Your task to perform on an android device: Empty the shopping cart on amazon. Search for "asus rog" on amazon, select the first entry, add it to the cart, then select checkout. Image 0: 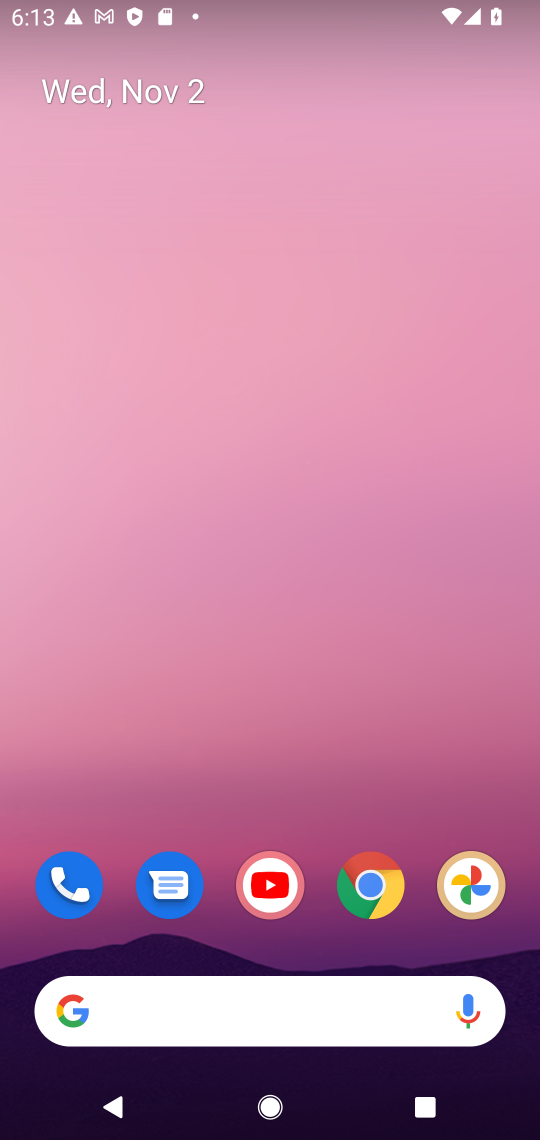
Step 0: click (384, 897)
Your task to perform on an android device: Empty the shopping cart on amazon. Search for "asus rog" on amazon, select the first entry, add it to the cart, then select checkout. Image 1: 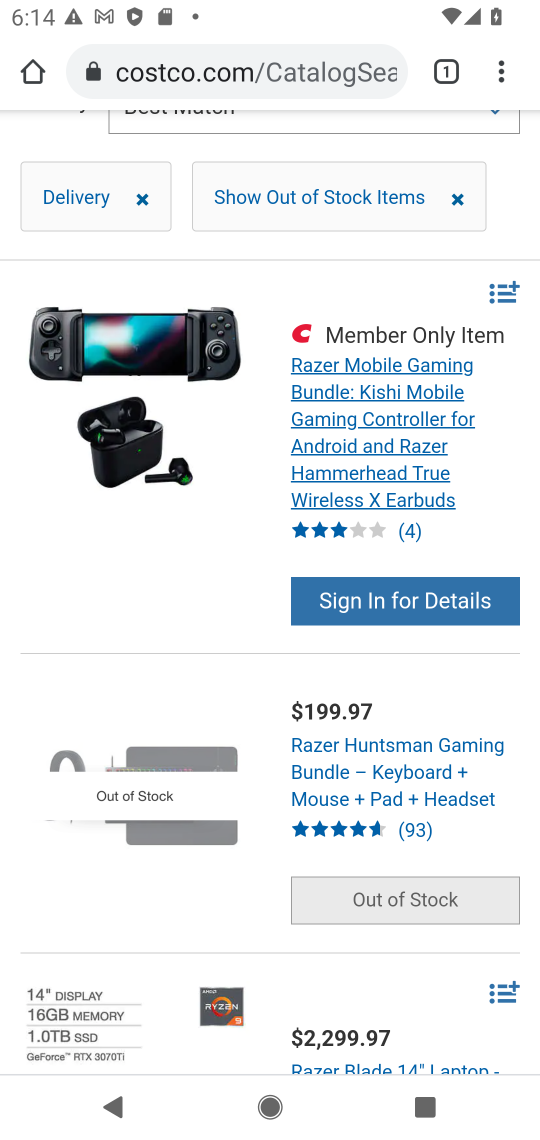
Step 1: drag from (263, 415) to (309, 828)
Your task to perform on an android device: Empty the shopping cart on amazon. Search for "asus rog" on amazon, select the first entry, add it to the cart, then select checkout. Image 2: 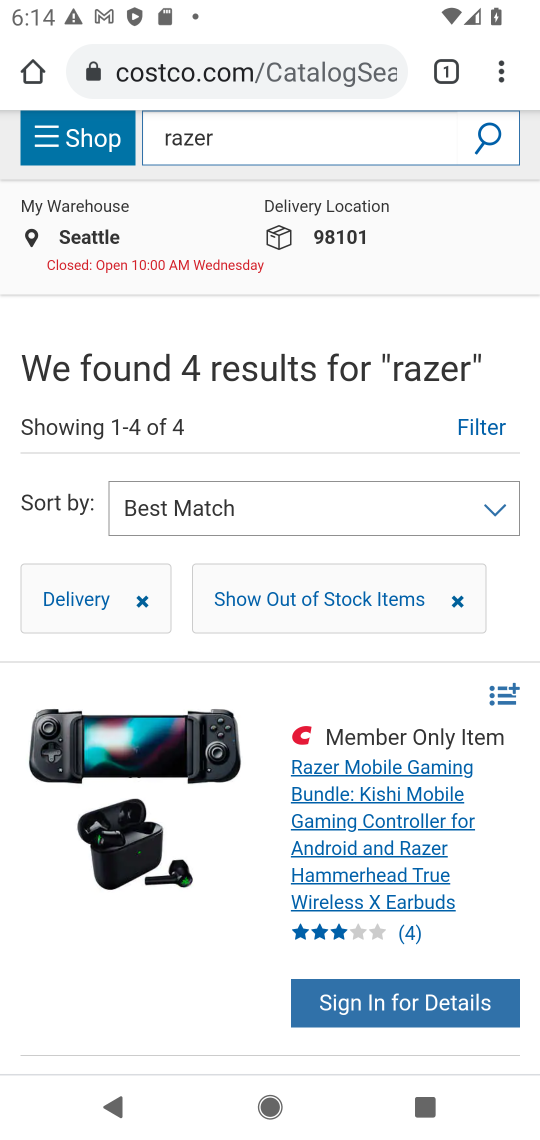
Step 2: click (499, 80)
Your task to perform on an android device: Empty the shopping cart on amazon. Search for "asus rog" on amazon, select the first entry, add it to the cart, then select checkout. Image 3: 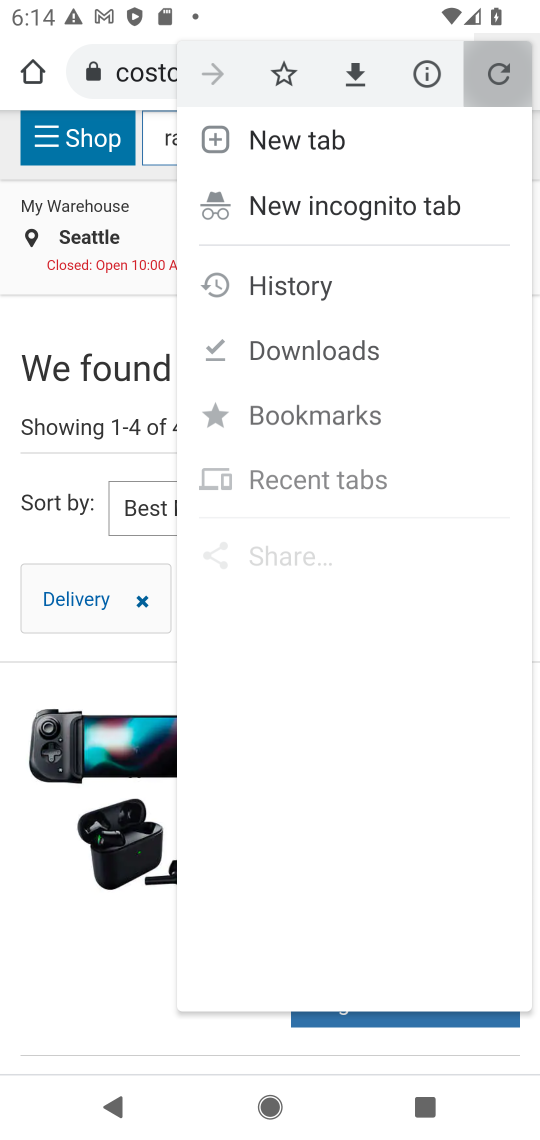
Step 3: drag from (492, 87) to (304, 145)
Your task to perform on an android device: Empty the shopping cart on amazon. Search for "asus rog" on amazon, select the first entry, add it to the cart, then select checkout. Image 4: 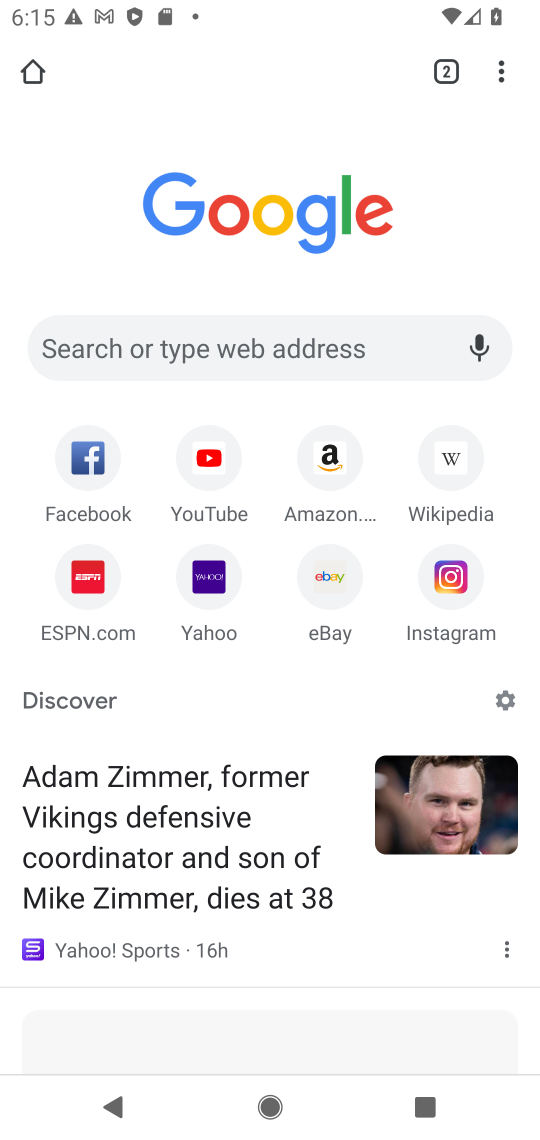
Step 4: click (336, 458)
Your task to perform on an android device: Empty the shopping cart on amazon. Search for "asus rog" on amazon, select the first entry, add it to the cart, then select checkout. Image 5: 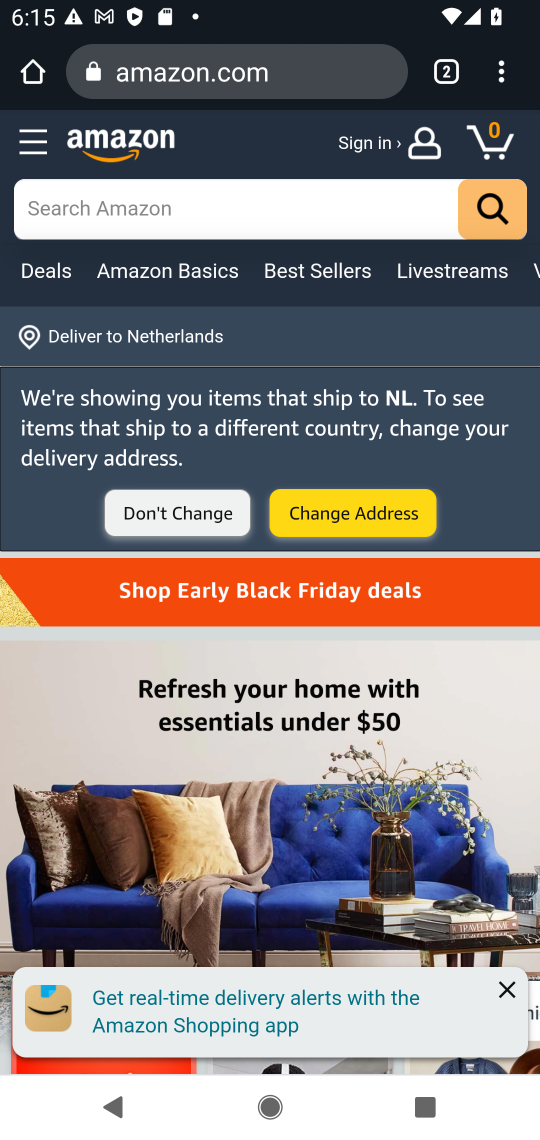
Step 5: click (33, 154)
Your task to perform on an android device: Empty the shopping cart on amazon. Search for "asus rog" on amazon, select the first entry, add it to the cart, then select checkout. Image 6: 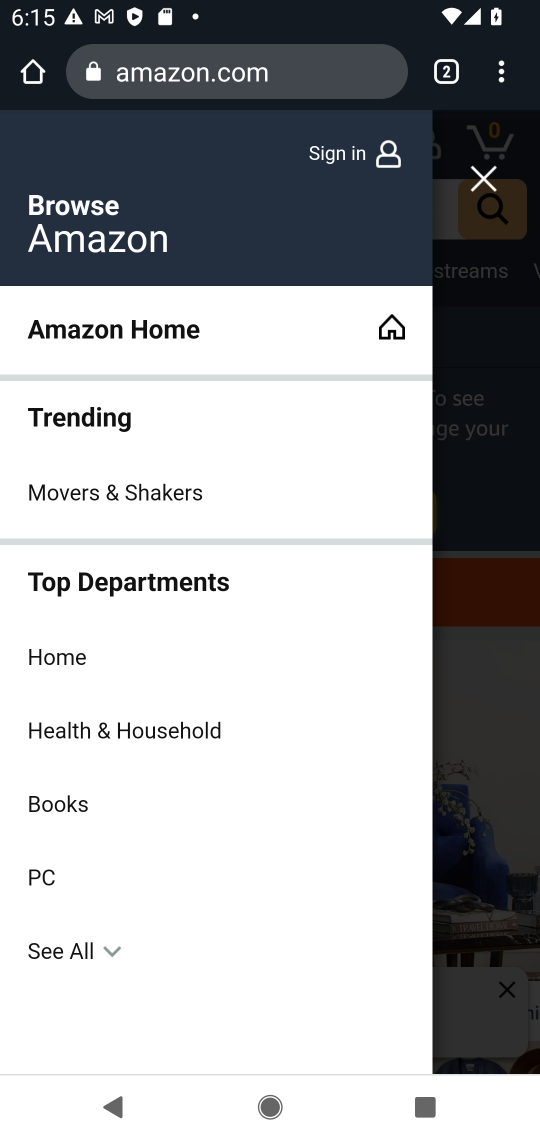
Step 6: drag from (164, 787) to (190, 456)
Your task to perform on an android device: Empty the shopping cart on amazon. Search for "asus rog" on amazon, select the first entry, add it to the cart, then select checkout. Image 7: 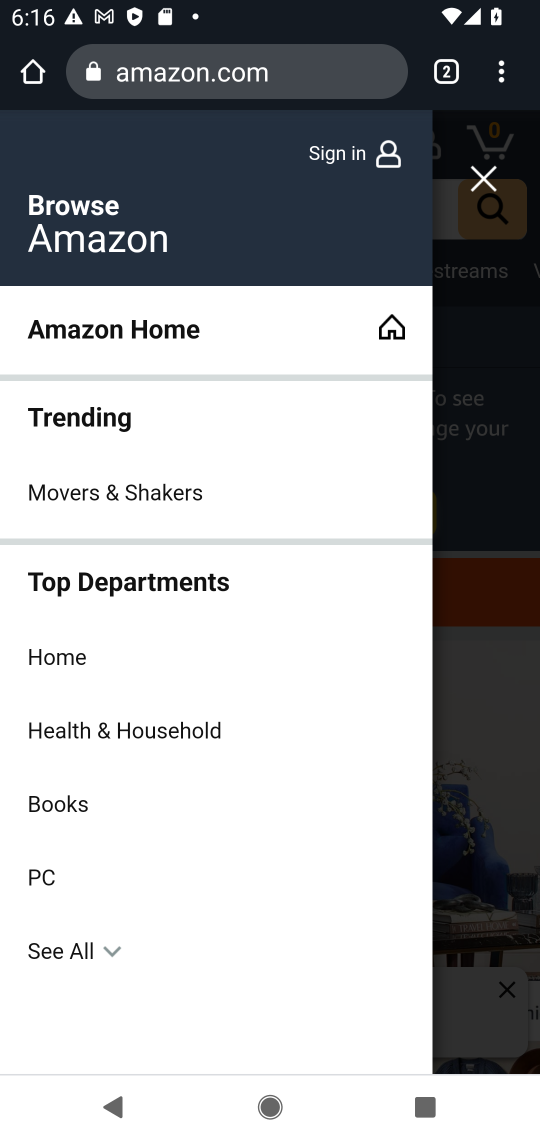
Step 7: click (493, 398)
Your task to perform on an android device: Empty the shopping cart on amazon. Search for "asus rog" on amazon, select the first entry, add it to the cart, then select checkout. Image 8: 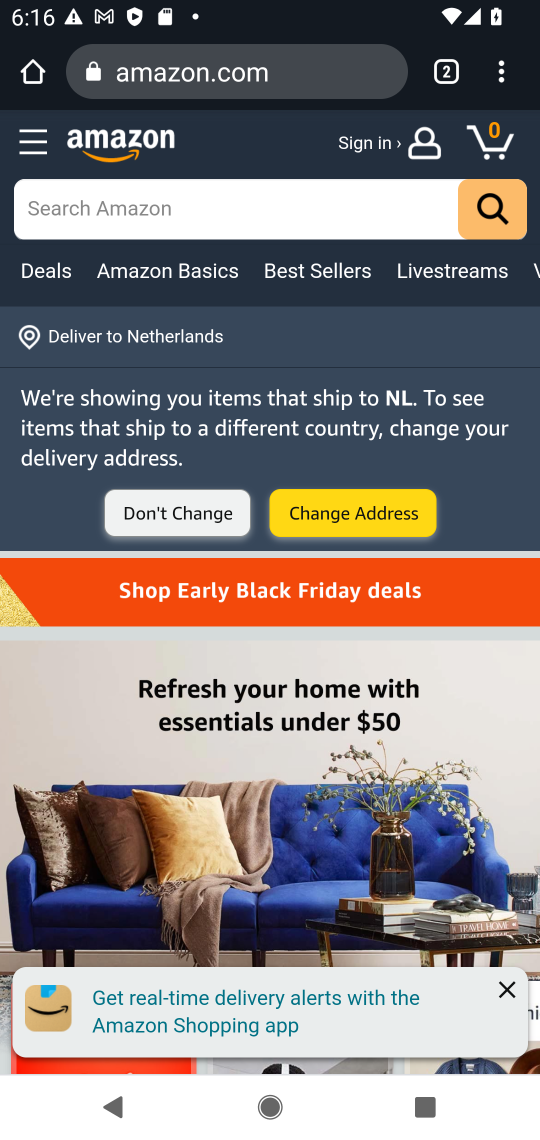
Step 8: click (483, 138)
Your task to perform on an android device: Empty the shopping cart on amazon. Search for "asus rog" on amazon, select the first entry, add it to the cart, then select checkout. Image 9: 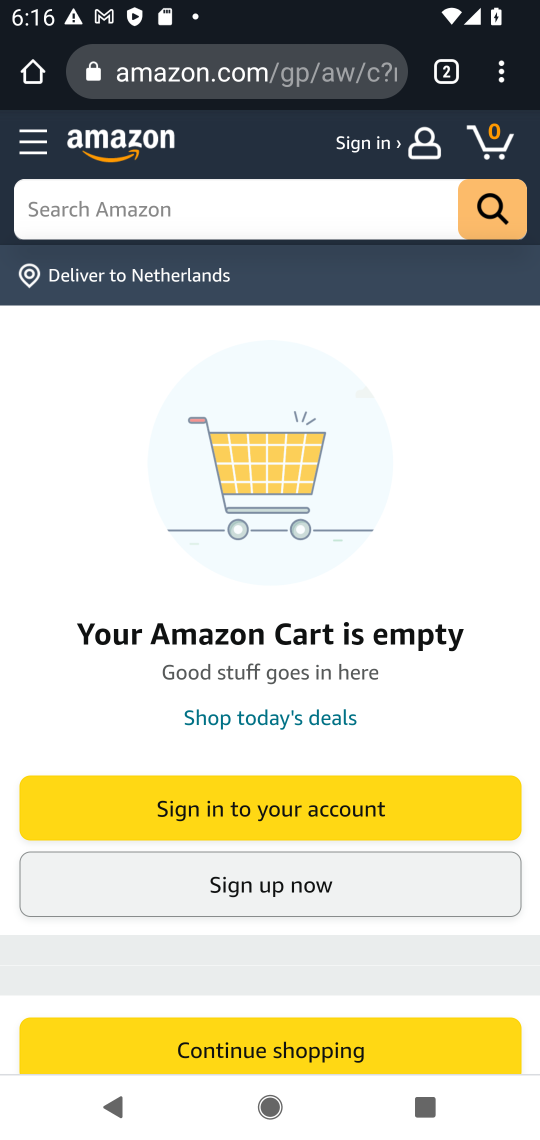
Step 9: click (197, 185)
Your task to perform on an android device: Empty the shopping cart on amazon. Search for "asus rog" on amazon, select the first entry, add it to the cart, then select checkout. Image 10: 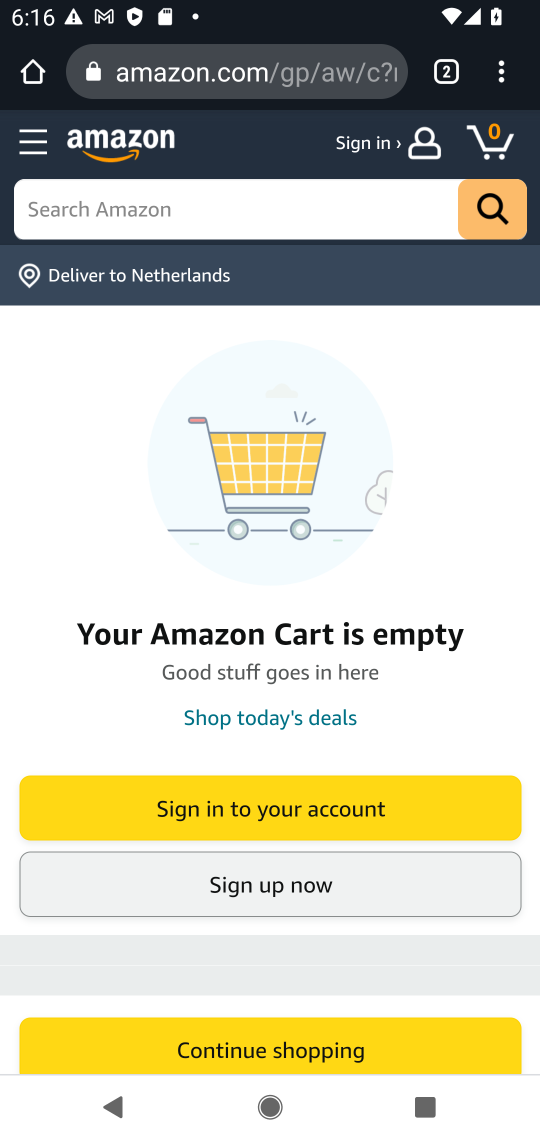
Step 10: click (203, 212)
Your task to perform on an android device: Empty the shopping cart on amazon. Search for "asus rog" on amazon, select the first entry, add it to the cart, then select checkout. Image 11: 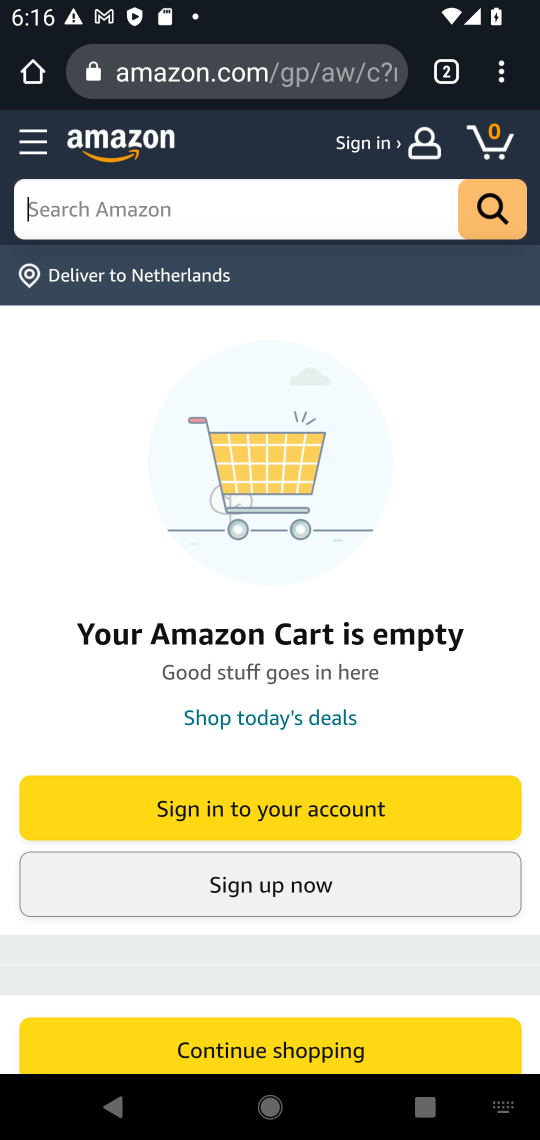
Step 11: type "sus rog"
Your task to perform on an android device: Empty the shopping cart on amazon. Search for "asus rog" on amazon, select the first entry, add it to the cart, then select checkout. Image 12: 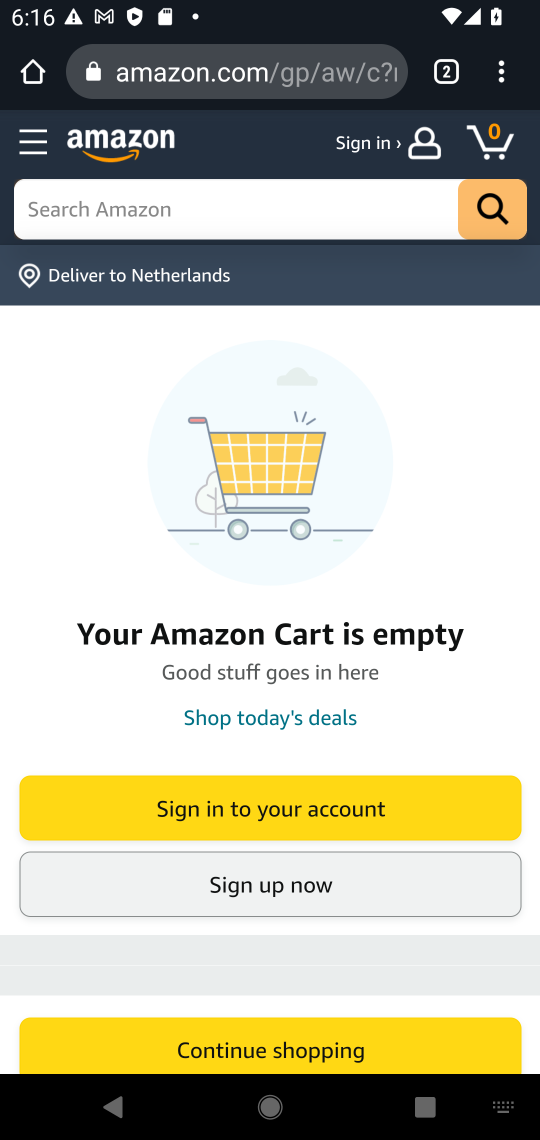
Step 12: type ""
Your task to perform on an android device: Empty the shopping cart on amazon. Search for "asus rog" on amazon, select the first entry, add it to the cart, then select checkout. Image 13: 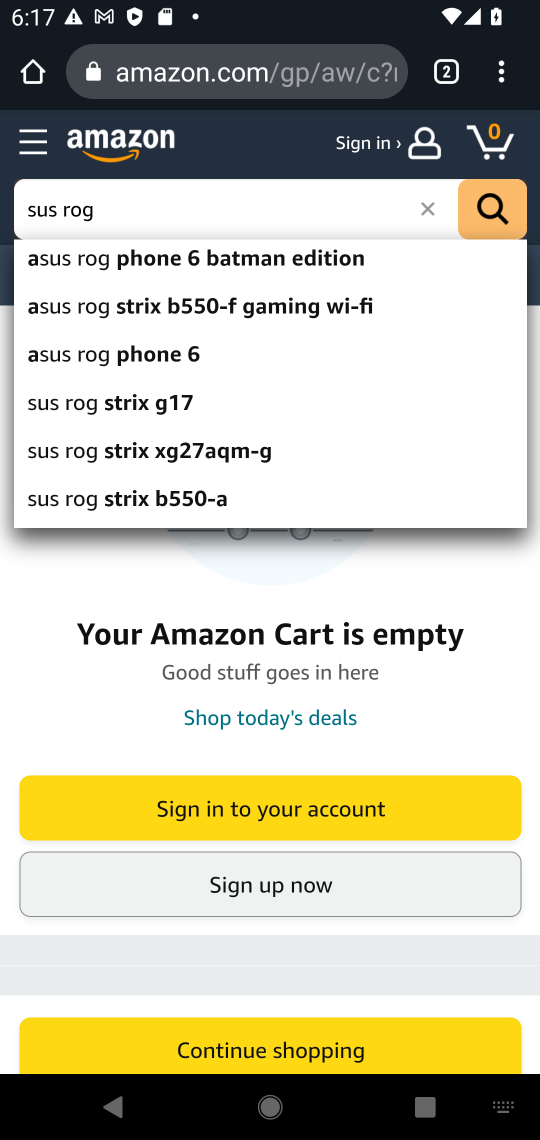
Step 13: click (73, 414)
Your task to perform on an android device: Empty the shopping cart on amazon. Search for "asus rog" on amazon, select the first entry, add it to the cart, then select checkout. Image 14: 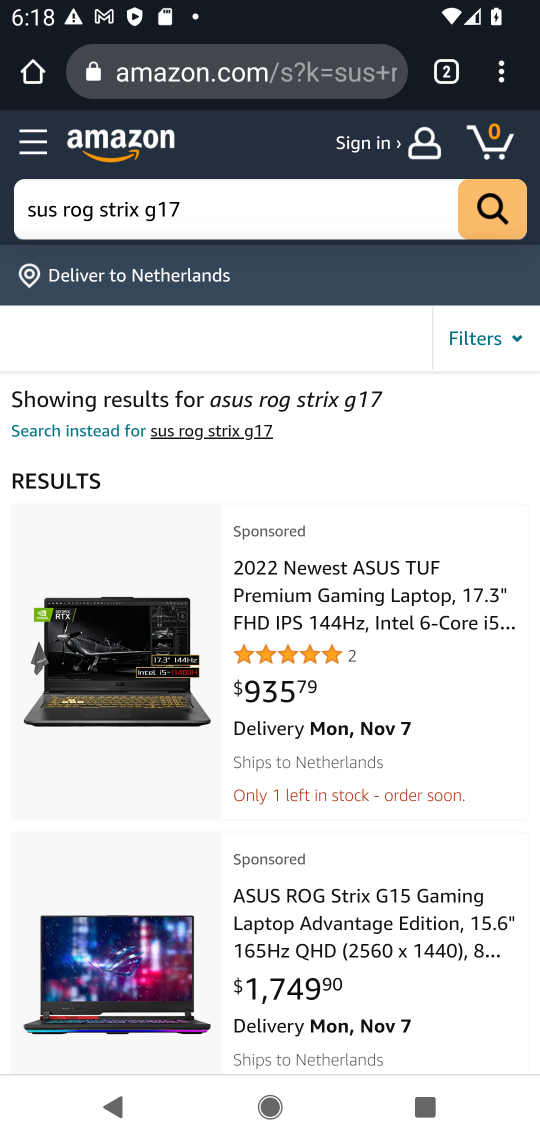
Step 14: click (275, 952)
Your task to perform on an android device: Empty the shopping cart on amazon. Search for "asus rog" on amazon, select the first entry, add it to the cart, then select checkout. Image 15: 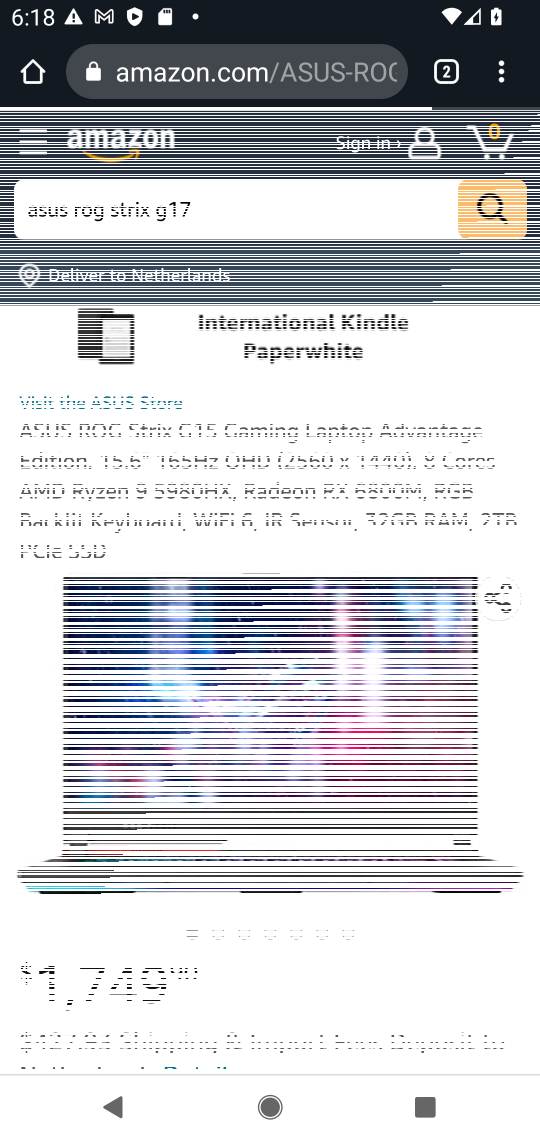
Step 15: drag from (272, 978) to (248, 542)
Your task to perform on an android device: Empty the shopping cart on amazon. Search for "asus rog" on amazon, select the first entry, add it to the cart, then select checkout. Image 16: 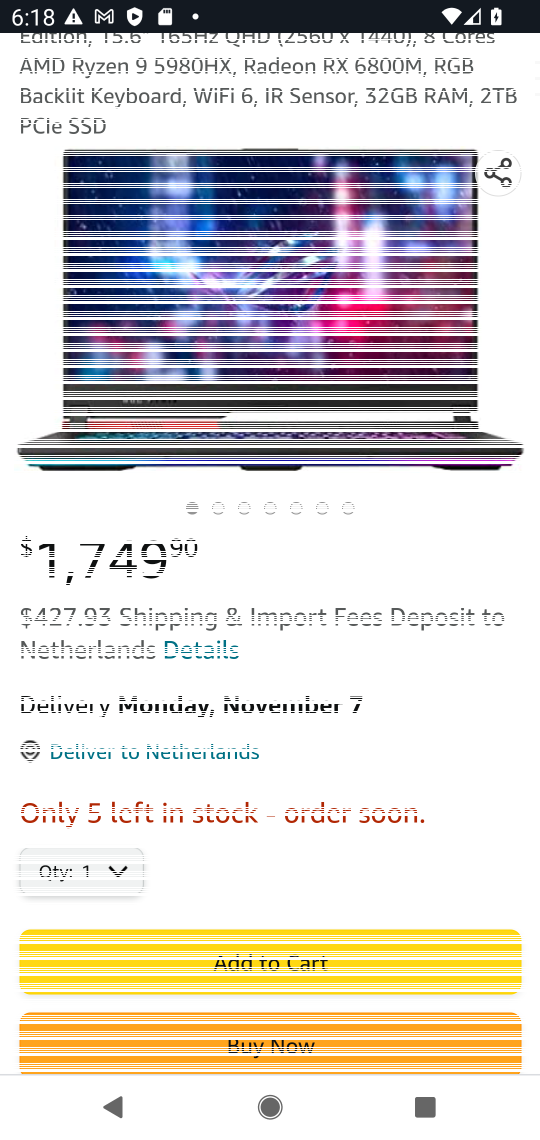
Step 16: drag from (221, 1007) to (192, 452)
Your task to perform on an android device: Empty the shopping cart on amazon. Search for "asus rog" on amazon, select the first entry, add it to the cart, then select checkout. Image 17: 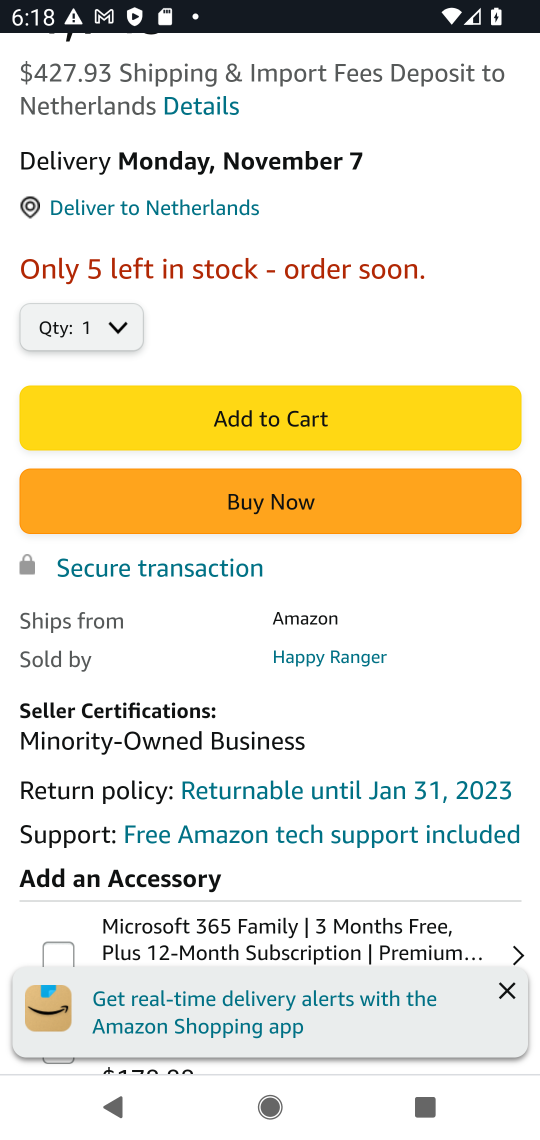
Step 17: click (265, 401)
Your task to perform on an android device: Empty the shopping cart on amazon. Search for "asus rog" on amazon, select the first entry, add it to the cart, then select checkout. Image 18: 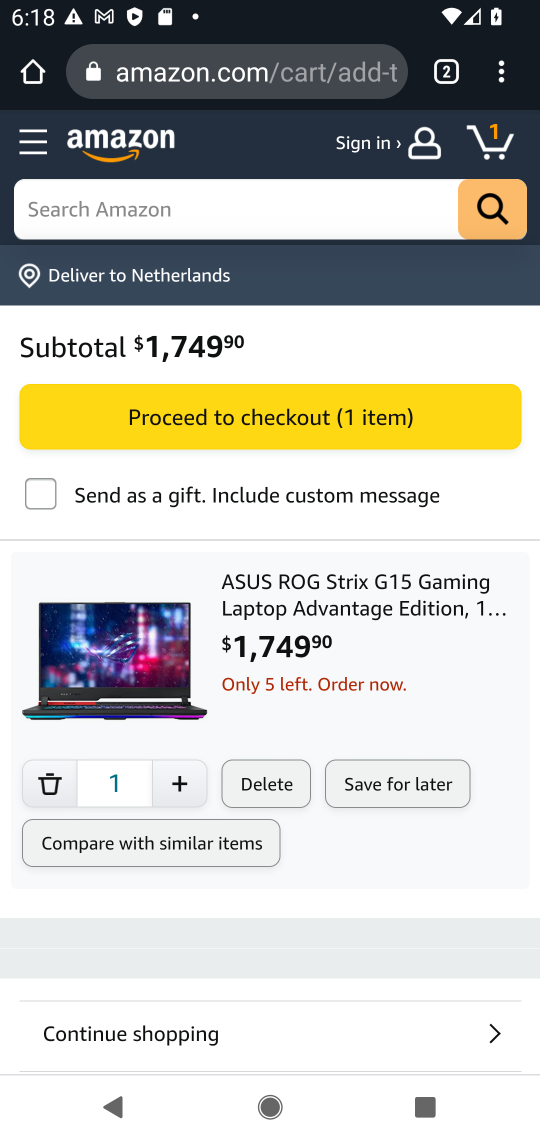
Step 18: drag from (156, 1005) to (197, 676)
Your task to perform on an android device: Empty the shopping cart on amazon. Search for "asus rog" on amazon, select the first entry, add it to the cart, then select checkout. Image 19: 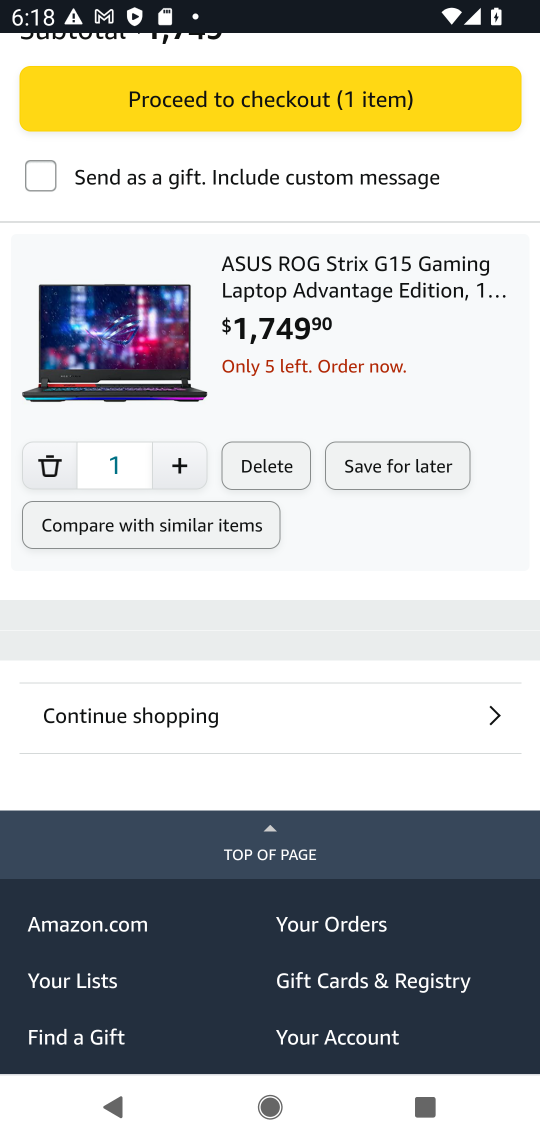
Step 19: click (319, 647)
Your task to perform on an android device: Empty the shopping cart on amazon. Search for "asus rog" on amazon, select the first entry, add it to the cart, then select checkout. Image 20: 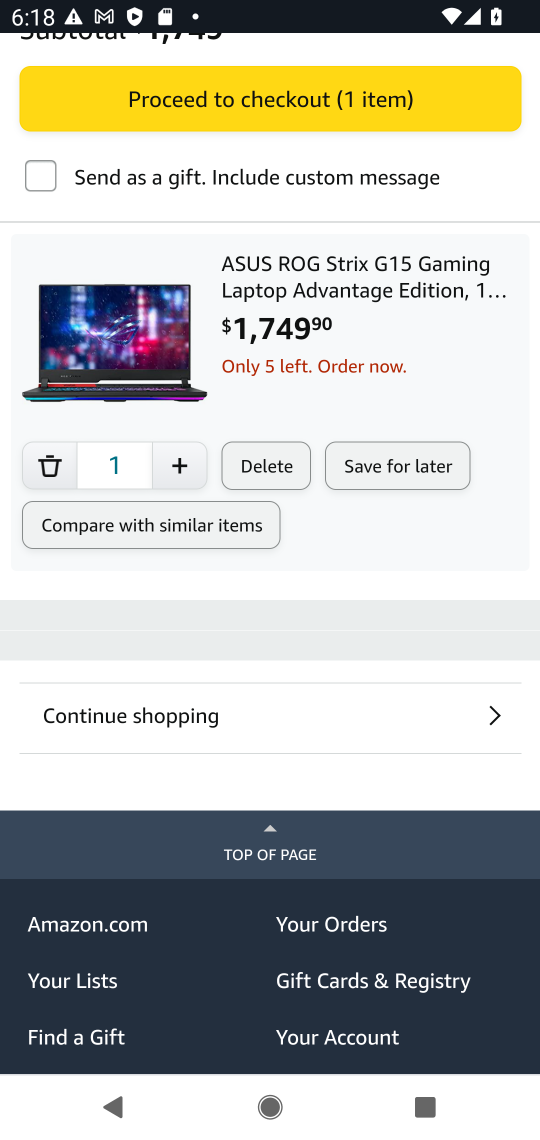
Step 20: task complete